Your task to perform on an android device: Go to location settings Image 0: 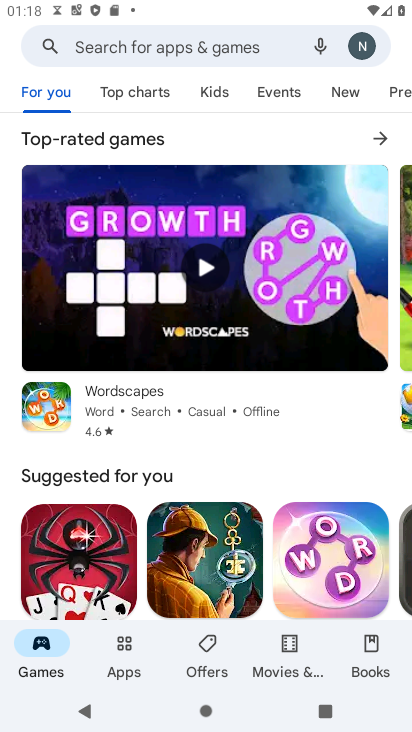
Step 0: press back button
Your task to perform on an android device: Go to location settings Image 1: 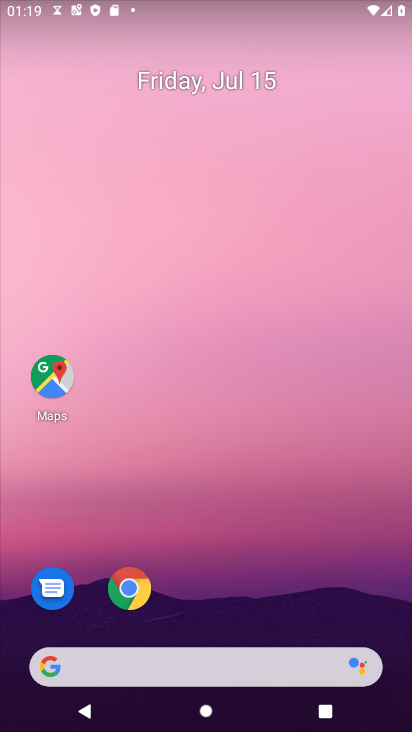
Step 1: drag from (255, 526) to (284, 80)
Your task to perform on an android device: Go to location settings Image 2: 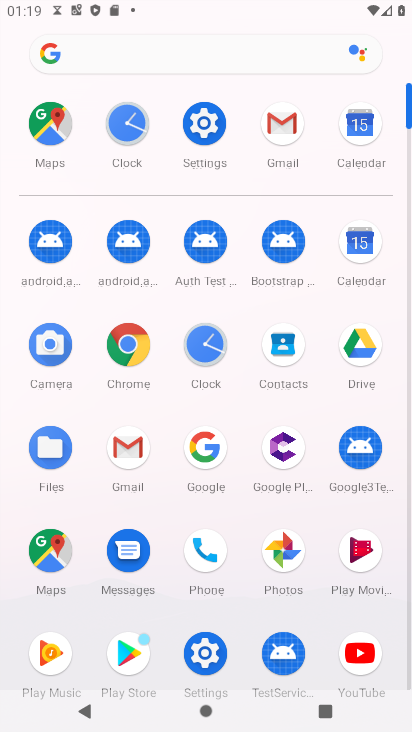
Step 2: click (192, 129)
Your task to perform on an android device: Go to location settings Image 3: 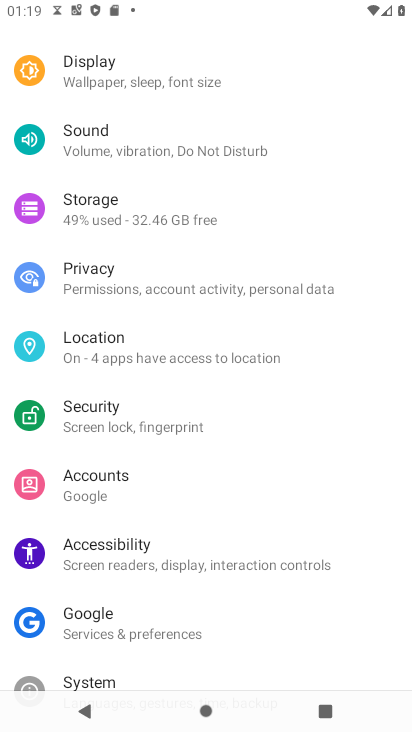
Step 3: click (97, 361)
Your task to perform on an android device: Go to location settings Image 4: 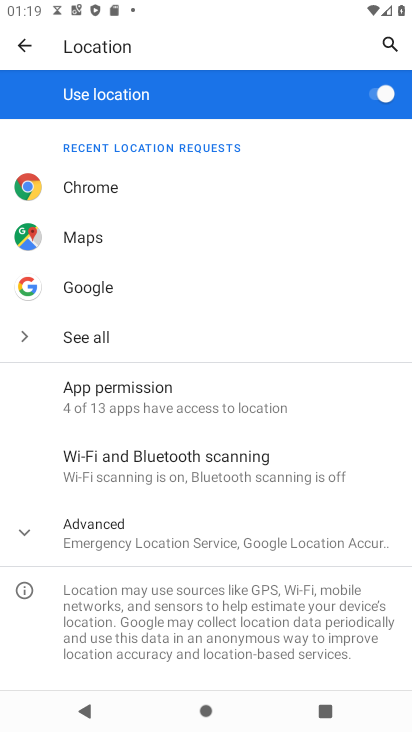
Step 4: task complete